Your task to perform on an android device: add a contact in the contacts app Image 0: 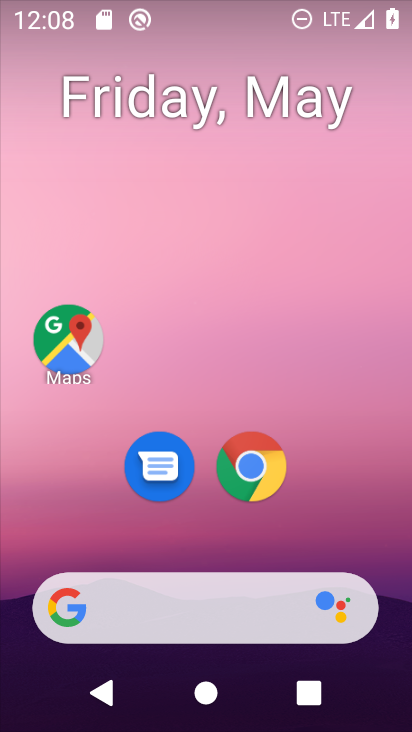
Step 0: drag from (226, 602) to (248, 16)
Your task to perform on an android device: add a contact in the contacts app Image 1: 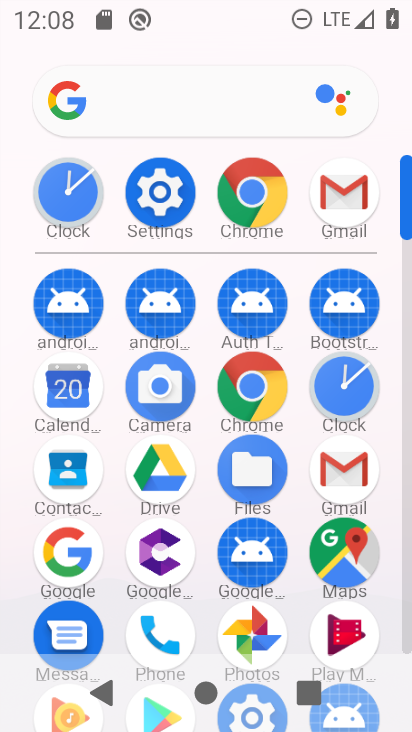
Step 1: click (67, 483)
Your task to perform on an android device: add a contact in the contacts app Image 2: 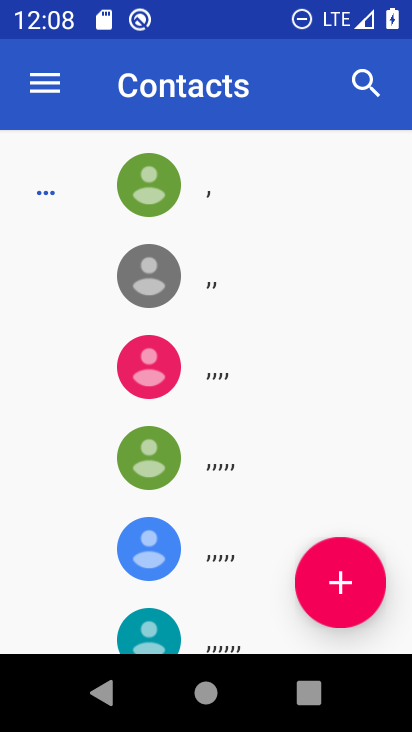
Step 2: click (338, 576)
Your task to perform on an android device: add a contact in the contacts app Image 3: 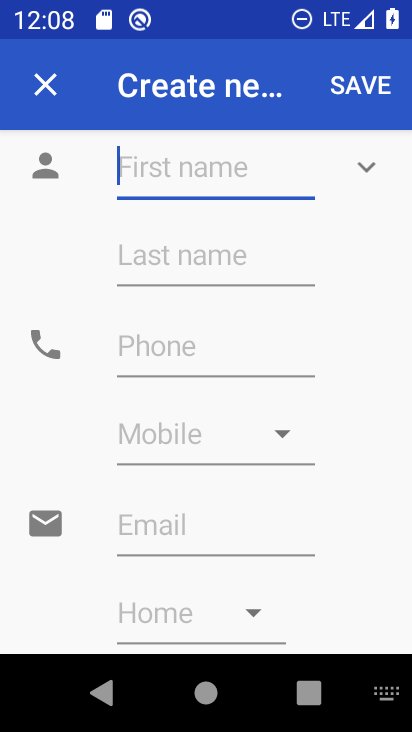
Step 3: type "ygyjgjh"
Your task to perform on an android device: add a contact in the contacts app Image 4: 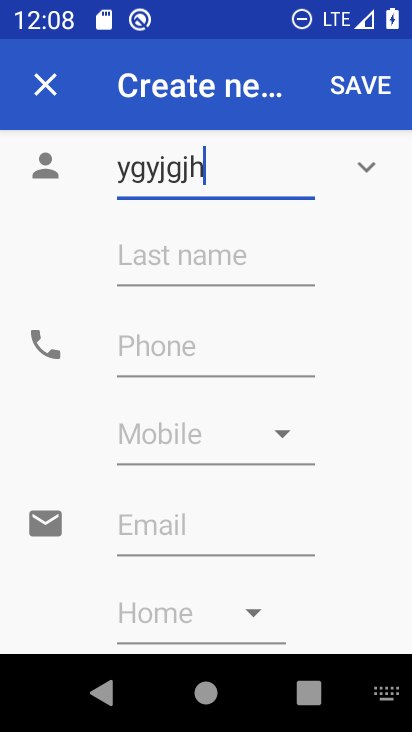
Step 4: click (184, 355)
Your task to perform on an android device: add a contact in the contacts app Image 5: 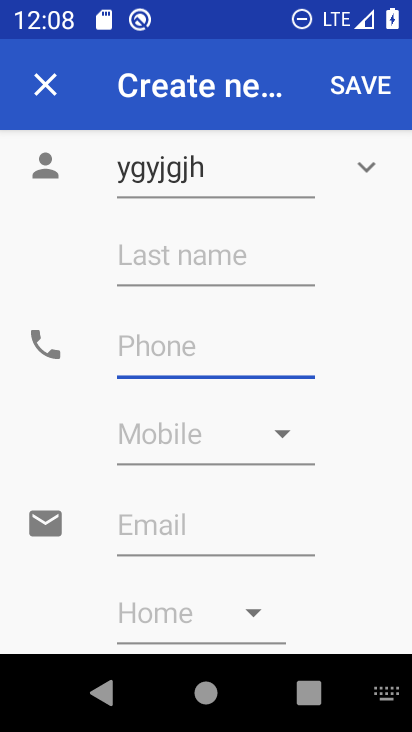
Step 5: type "9897878878"
Your task to perform on an android device: add a contact in the contacts app Image 6: 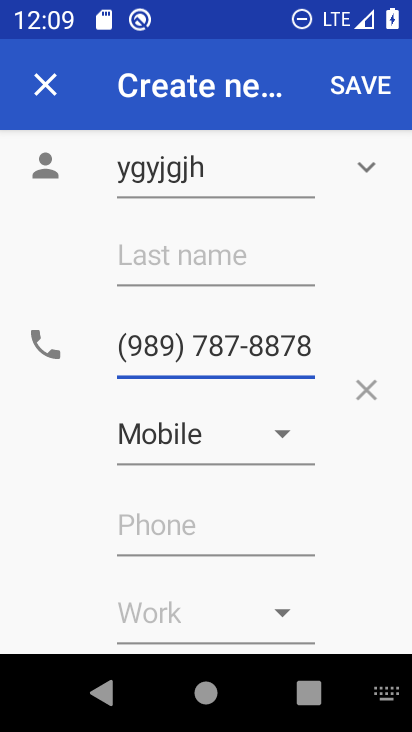
Step 6: click (389, 90)
Your task to perform on an android device: add a contact in the contacts app Image 7: 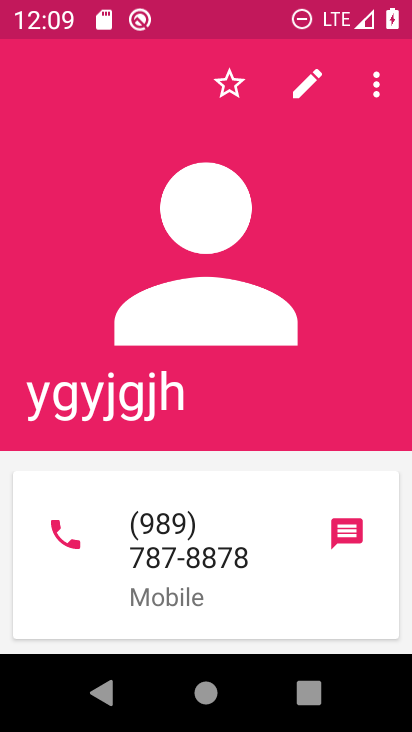
Step 7: task complete